Your task to perform on an android device: Open the Play Movies app and select the watchlist tab. Image 0: 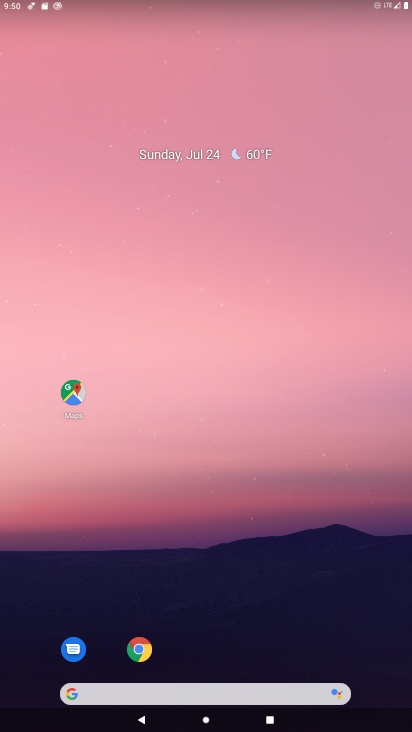
Step 0: drag from (319, 598) to (249, 56)
Your task to perform on an android device: Open the Play Movies app and select the watchlist tab. Image 1: 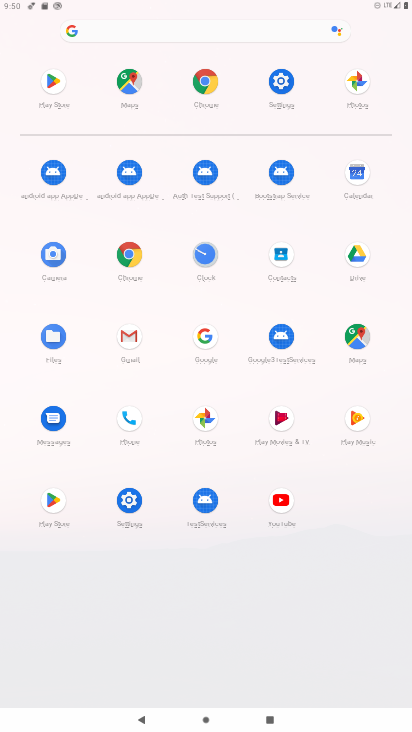
Step 1: click (281, 419)
Your task to perform on an android device: Open the Play Movies app and select the watchlist tab. Image 2: 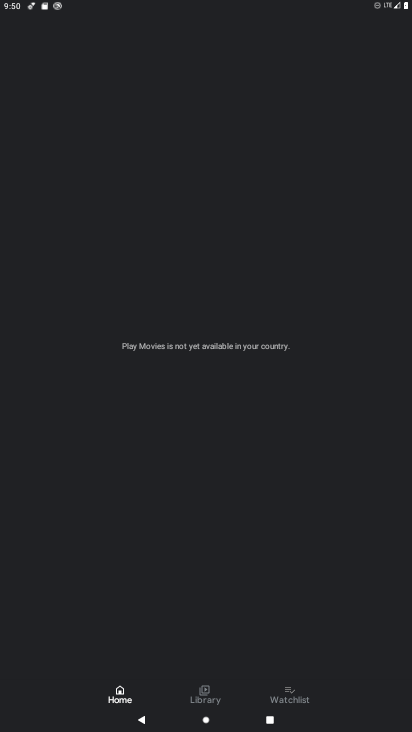
Step 2: click (274, 696)
Your task to perform on an android device: Open the Play Movies app and select the watchlist tab. Image 3: 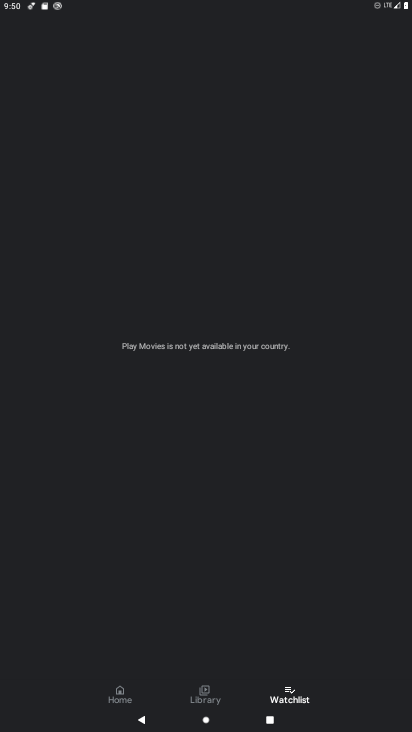
Step 3: task complete